Your task to perform on an android device: Open Chrome and go to settings Image 0: 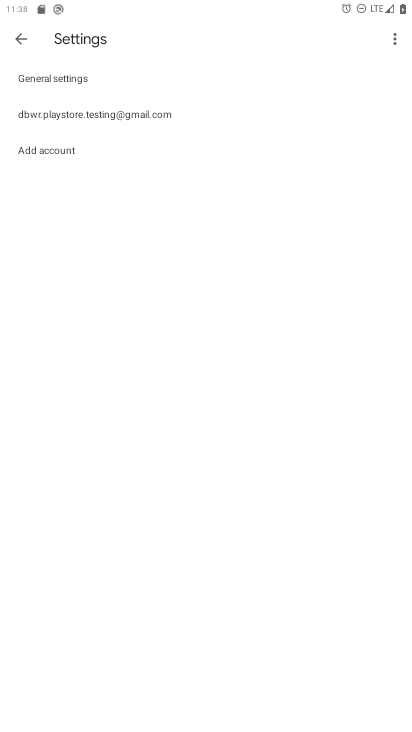
Step 0: press home button
Your task to perform on an android device: Open Chrome and go to settings Image 1: 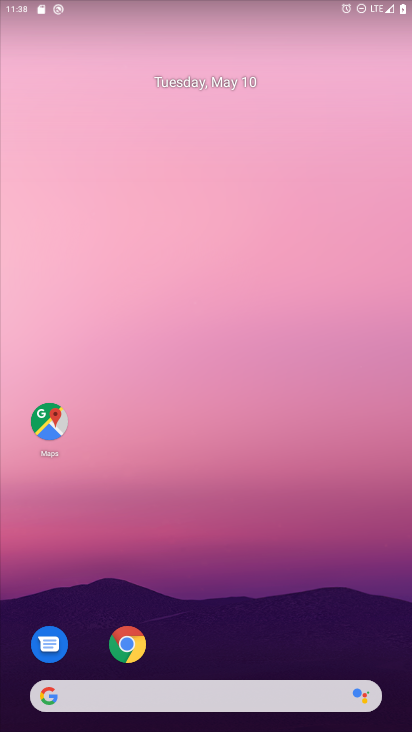
Step 1: click (120, 663)
Your task to perform on an android device: Open Chrome and go to settings Image 2: 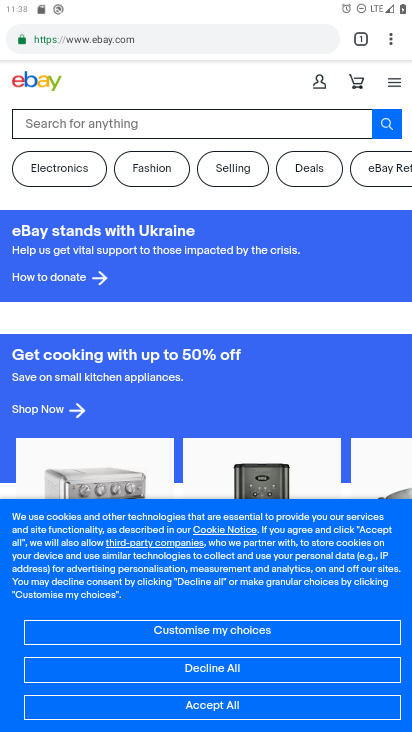
Step 2: click (388, 39)
Your task to perform on an android device: Open Chrome and go to settings Image 3: 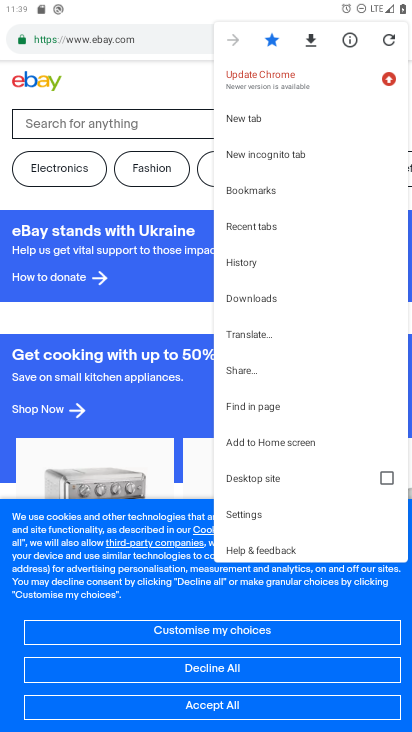
Step 3: click (263, 517)
Your task to perform on an android device: Open Chrome and go to settings Image 4: 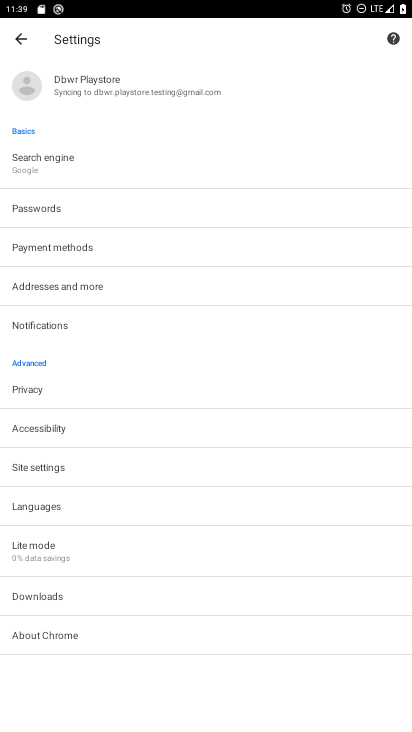
Step 4: click (52, 468)
Your task to perform on an android device: Open Chrome and go to settings Image 5: 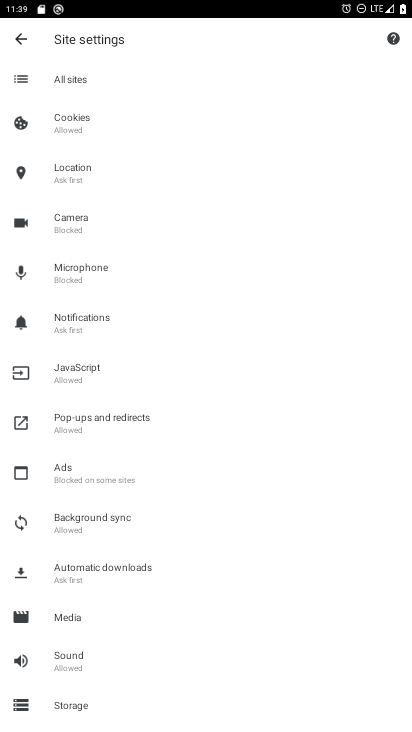
Step 5: task complete